Your task to perform on an android device: What is the news today? Image 0: 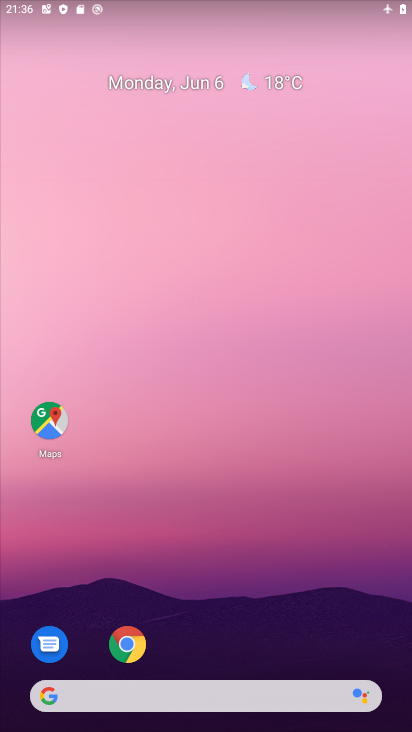
Step 0: drag from (320, 609) to (301, 223)
Your task to perform on an android device: What is the news today? Image 1: 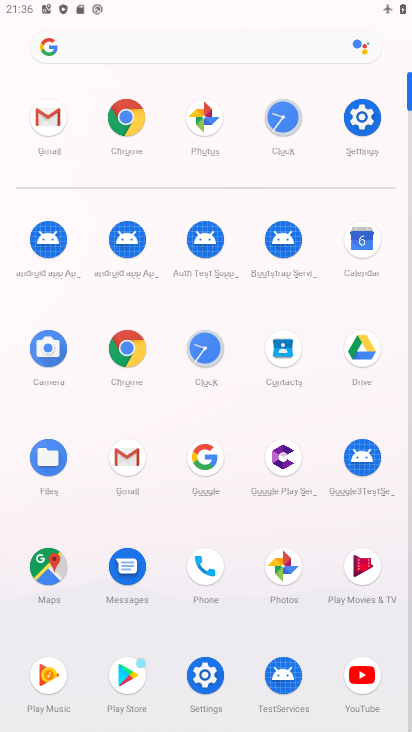
Step 1: click (134, 349)
Your task to perform on an android device: What is the news today? Image 2: 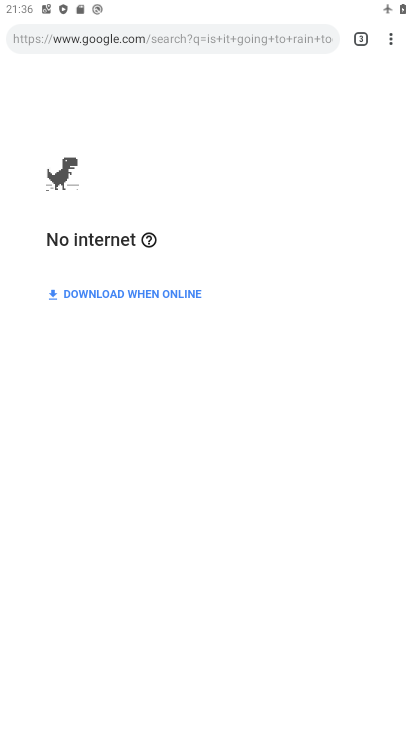
Step 2: drag from (217, 5) to (241, 297)
Your task to perform on an android device: What is the news today? Image 3: 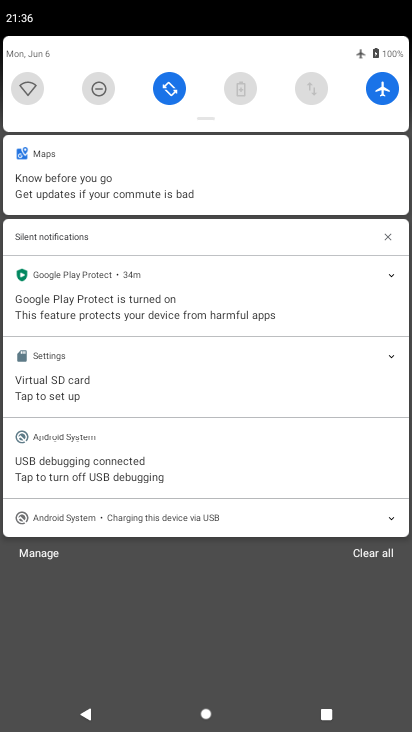
Step 3: click (376, 99)
Your task to perform on an android device: What is the news today? Image 4: 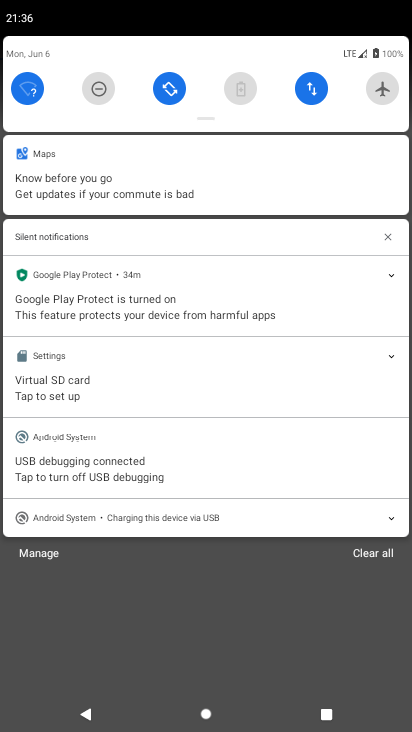
Step 4: drag from (178, 595) to (197, 170)
Your task to perform on an android device: What is the news today? Image 5: 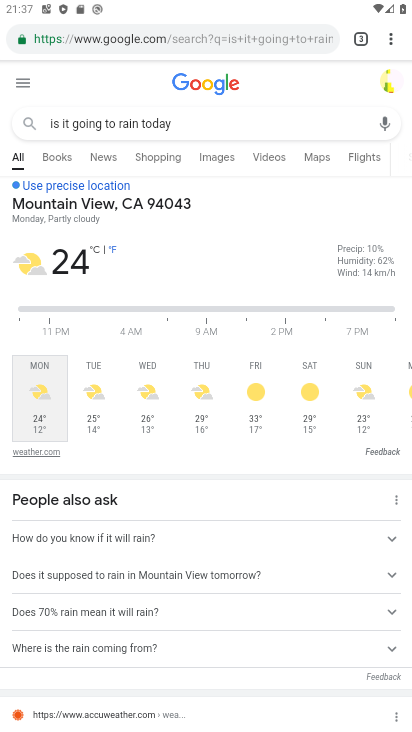
Step 5: click (297, 41)
Your task to perform on an android device: What is the news today? Image 6: 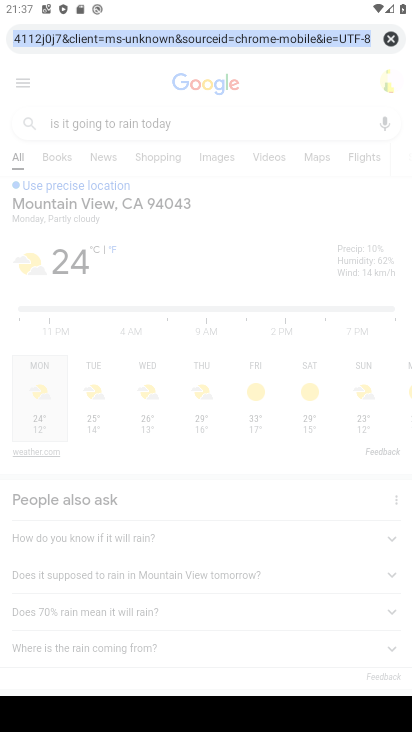
Step 6: click (396, 41)
Your task to perform on an android device: What is the news today? Image 7: 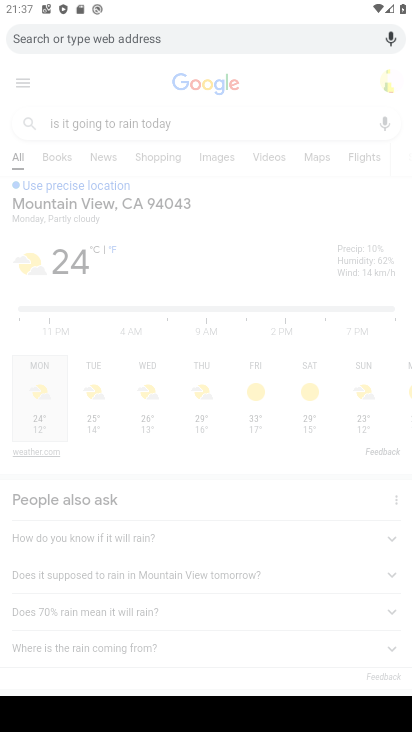
Step 7: type "what is the news today"
Your task to perform on an android device: What is the news today? Image 8: 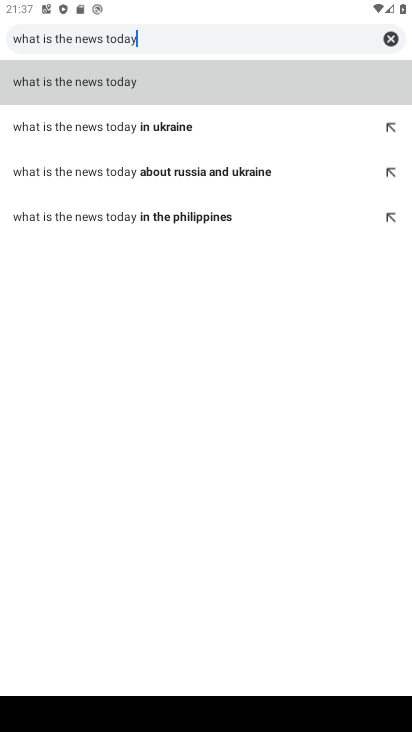
Step 8: click (152, 93)
Your task to perform on an android device: What is the news today? Image 9: 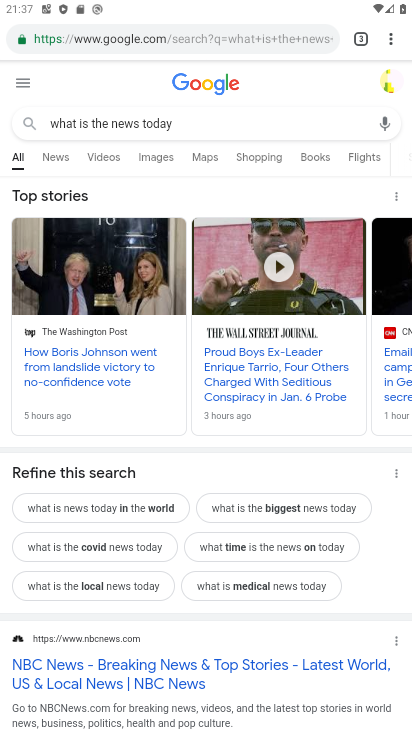
Step 9: task complete